Your task to perform on an android device: Open settings Image 0: 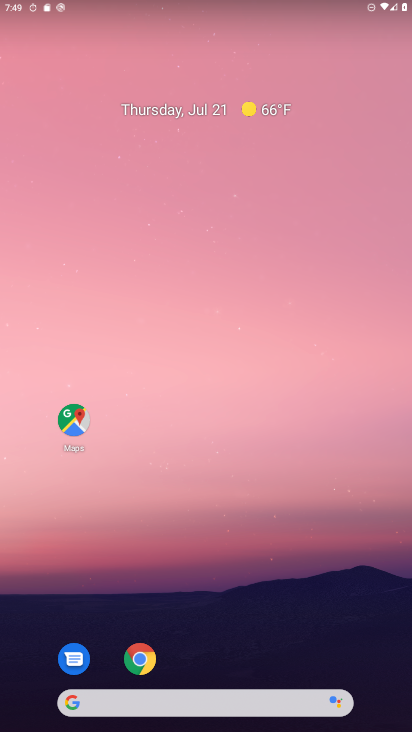
Step 0: drag from (177, 611) to (236, 105)
Your task to perform on an android device: Open settings Image 1: 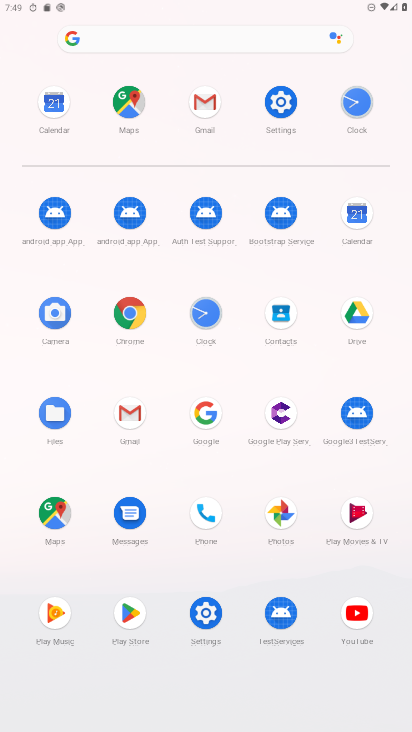
Step 1: click (274, 109)
Your task to perform on an android device: Open settings Image 2: 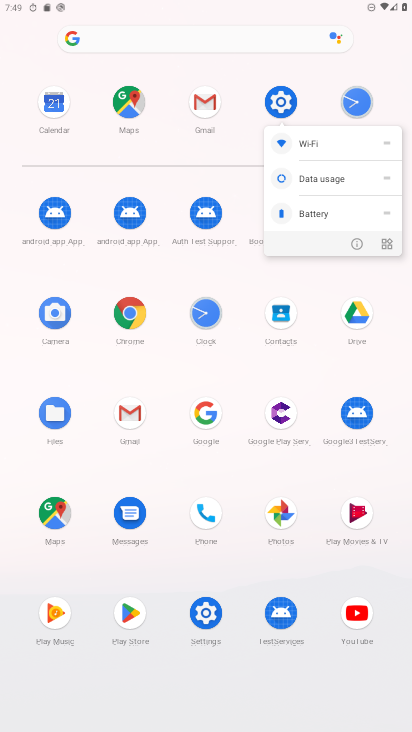
Step 2: click (353, 248)
Your task to perform on an android device: Open settings Image 3: 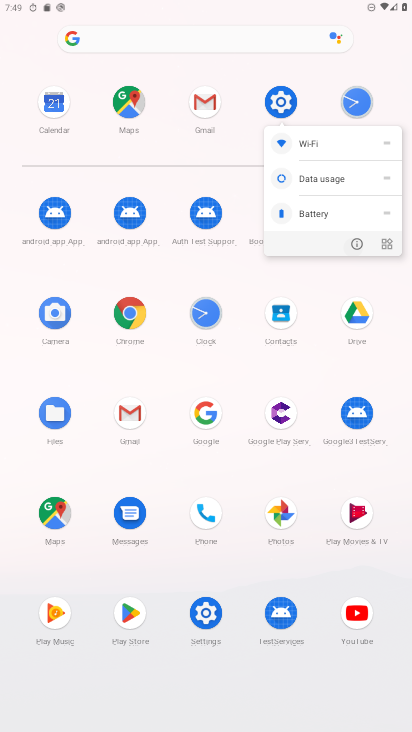
Step 3: click (353, 248)
Your task to perform on an android device: Open settings Image 4: 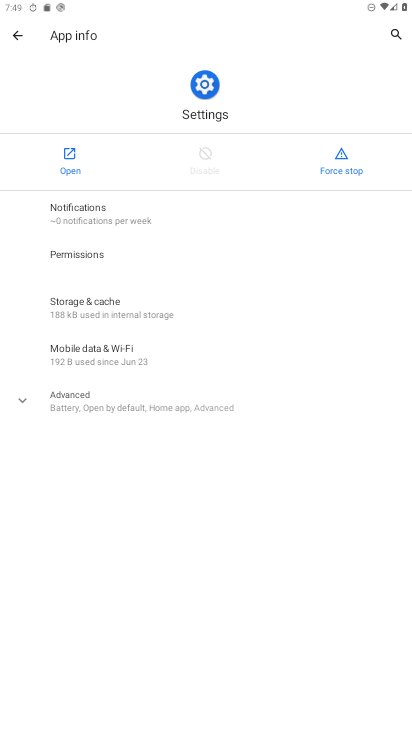
Step 4: drag from (206, 544) to (206, 170)
Your task to perform on an android device: Open settings Image 5: 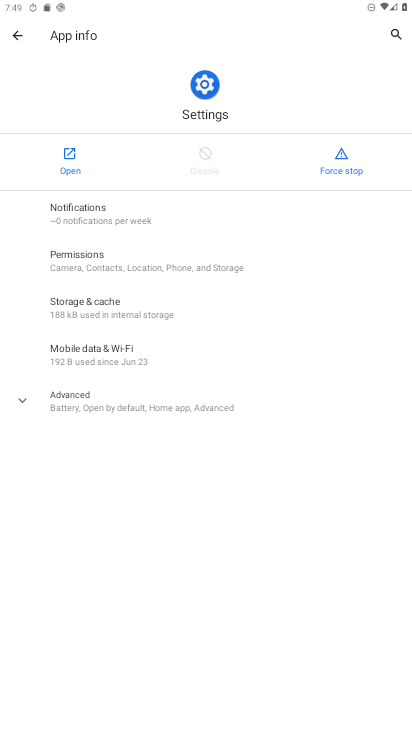
Step 5: click (67, 162)
Your task to perform on an android device: Open settings Image 6: 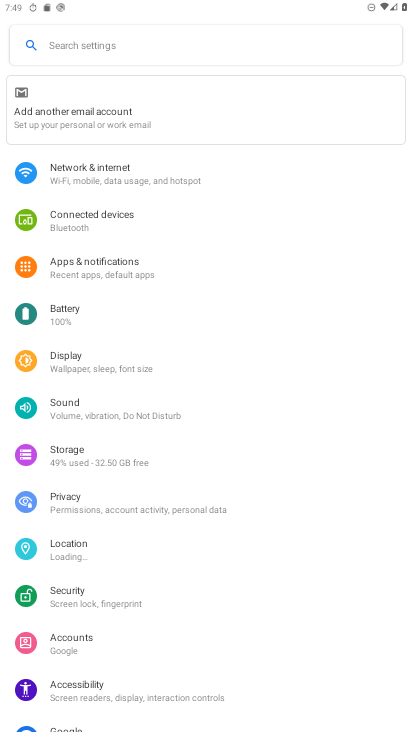
Step 6: task complete